Your task to perform on an android device: Play the last video I watched on Youtube Image 0: 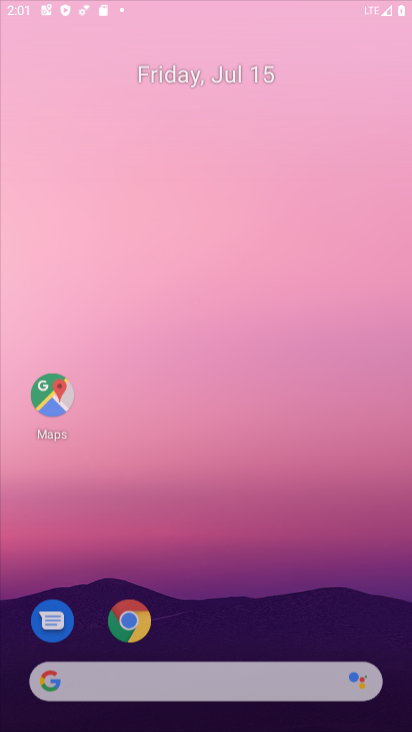
Step 0: press home button
Your task to perform on an android device: Play the last video I watched on Youtube Image 1: 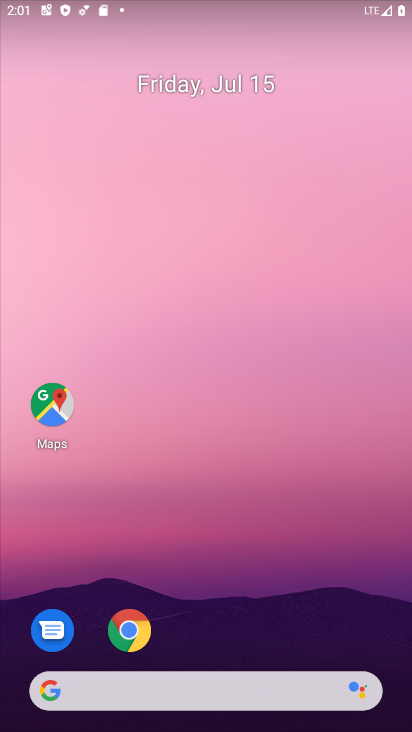
Step 1: drag from (289, 651) to (265, 64)
Your task to perform on an android device: Play the last video I watched on Youtube Image 2: 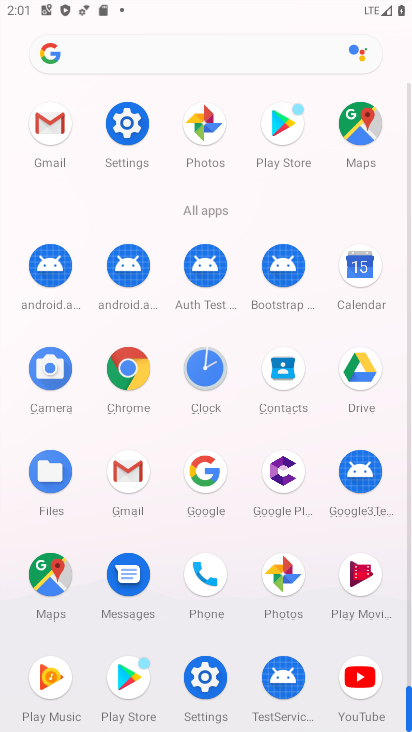
Step 2: click (360, 681)
Your task to perform on an android device: Play the last video I watched on Youtube Image 3: 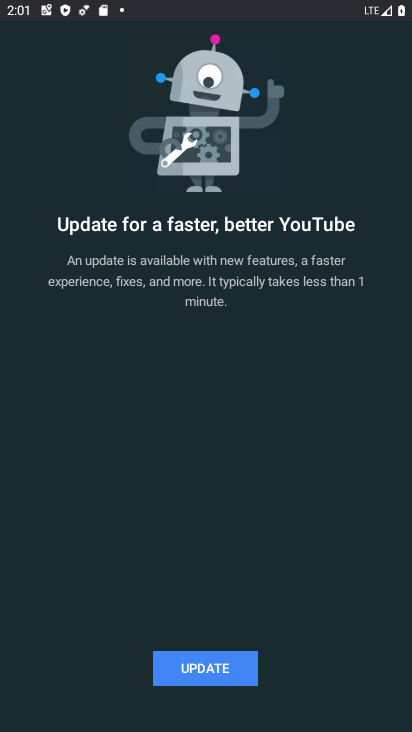
Step 3: click (217, 666)
Your task to perform on an android device: Play the last video I watched on Youtube Image 4: 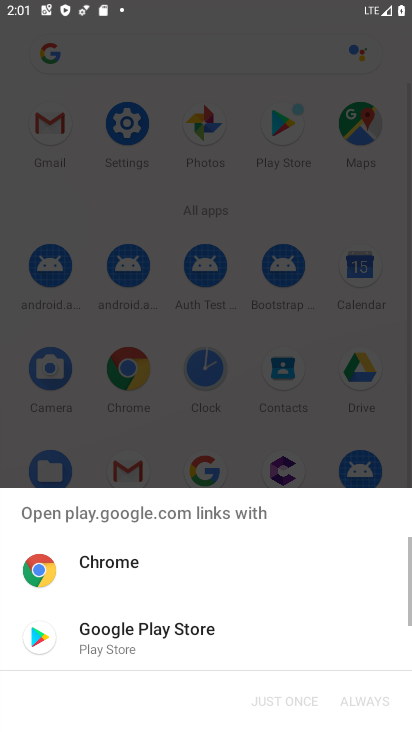
Step 4: click (125, 634)
Your task to perform on an android device: Play the last video I watched on Youtube Image 5: 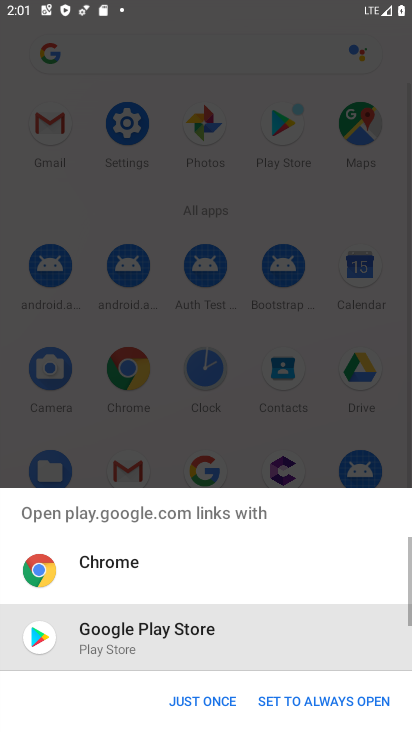
Step 5: click (206, 699)
Your task to perform on an android device: Play the last video I watched on Youtube Image 6: 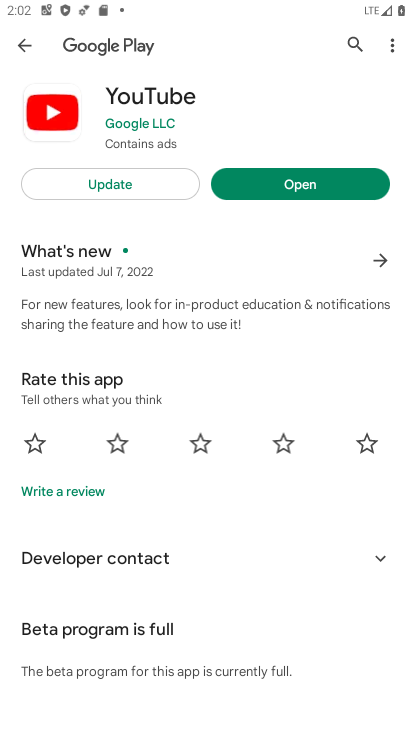
Step 6: click (151, 179)
Your task to perform on an android device: Play the last video I watched on Youtube Image 7: 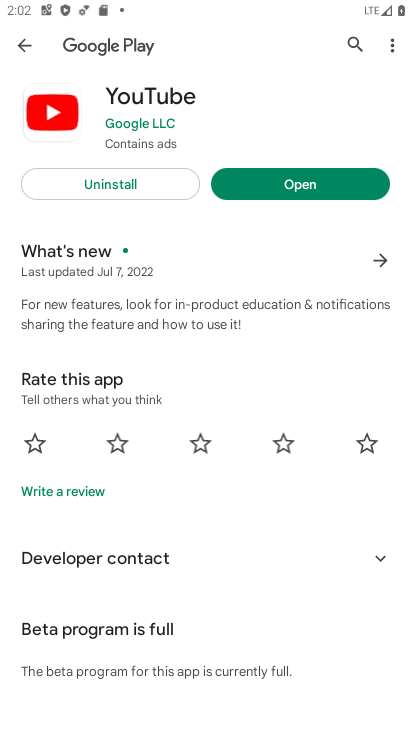
Step 7: click (295, 185)
Your task to perform on an android device: Play the last video I watched on Youtube Image 8: 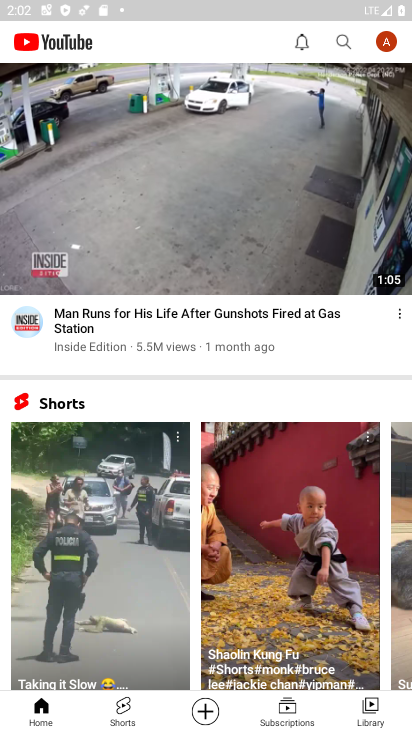
Step 8: click (375, 715)
Your task to perform on an android device: Play the last video I watched on Youtube Image 9: 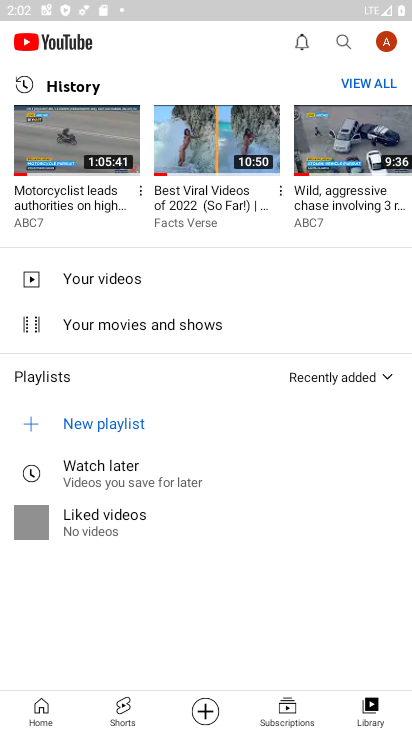
Step 9: click (378, 84)
Your task to perform on an android device: Play the last video I watched on Youtube Image 10: 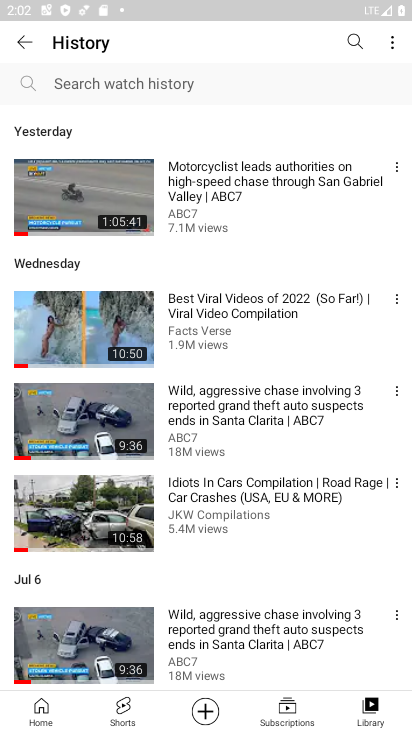
Step 10: click (75, 187)
Your task to perform on an android device: Play the last video I watched on Youtube Image 11: 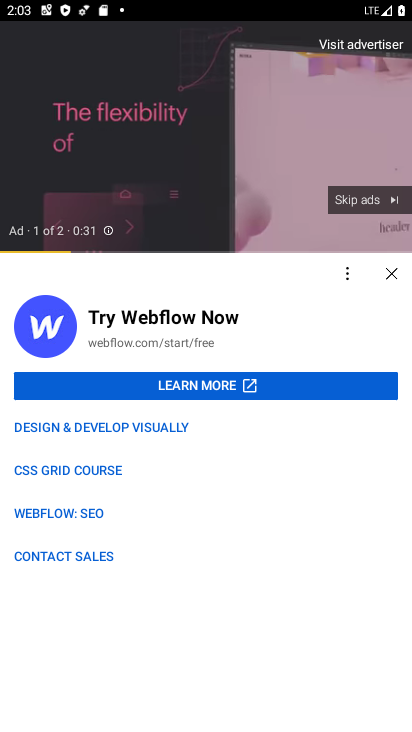
Step 11: click (393, 195)
Your task to perform on an android device: Play the last video I watched on Youtube Image 12: 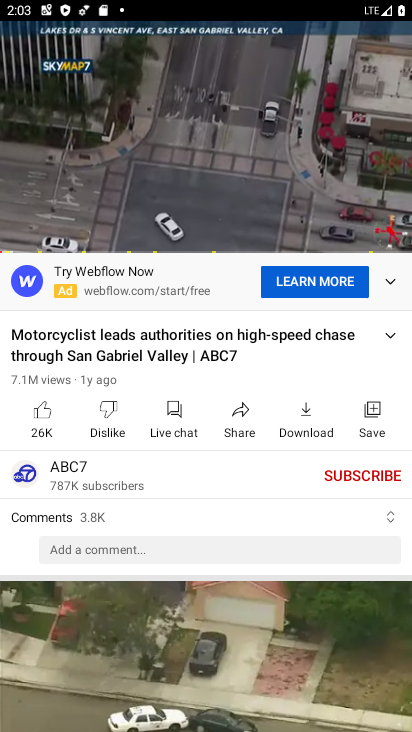
Step 12: task complete